Your task to perform on an android device: When is my next meeting? Image 0: 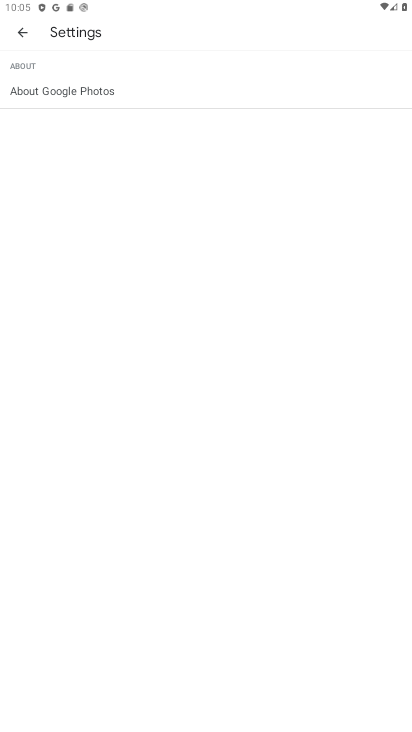
Step 0: press home button
Your task to perform on an android device: When is my next meeting? Image 1: 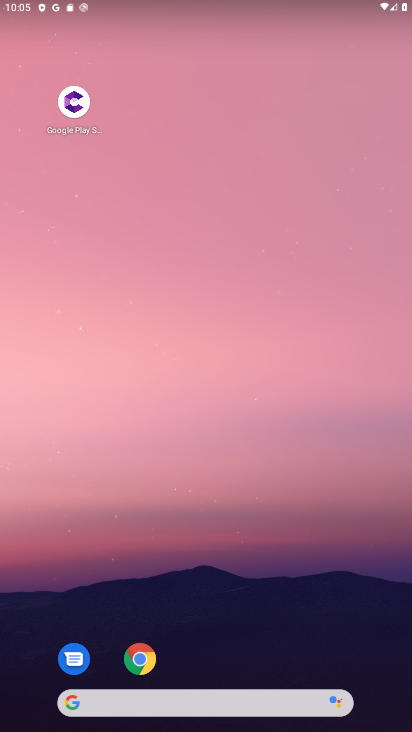
Step 1: drag from (251, 540) to (277, 162)
Your task to perform on an android device: When is my next meeting? Image 2: 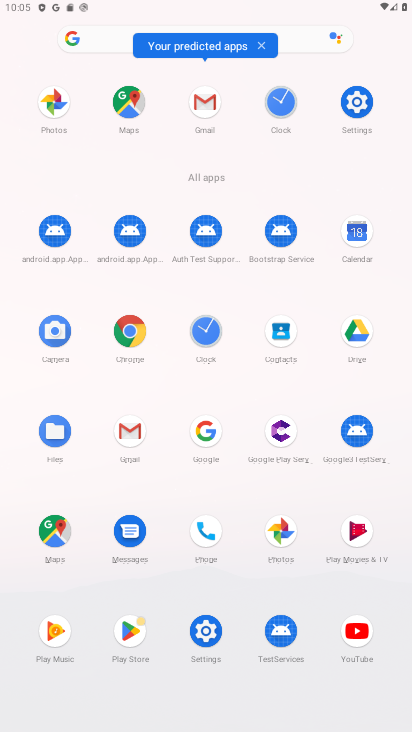
Step 2: click (366, 233)
Your task to perform on an android device: When is my next meeting? Image 3: 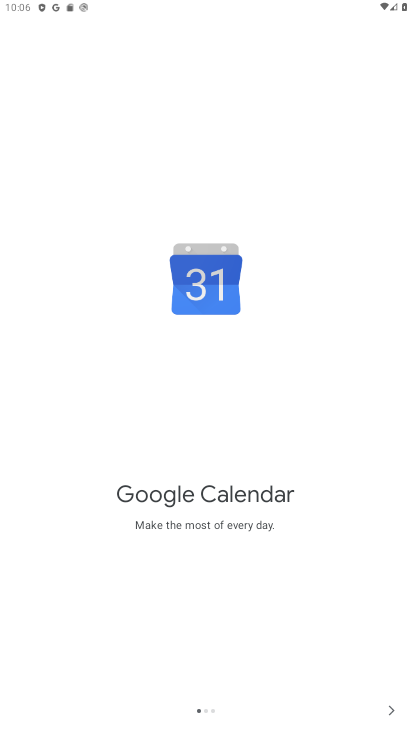
Step 3: click (389, 696)
Your task to perform on an android device: When is my next meeting? Image 4: 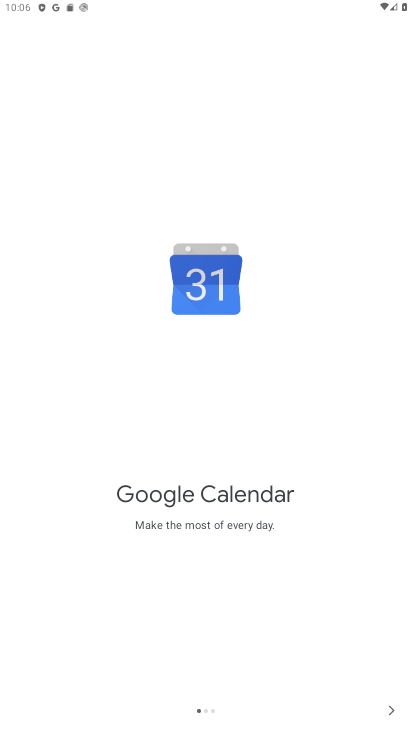
Step 4: click (391, 710)
Your task to perform on an android device: When is my next meeting? Image 5: 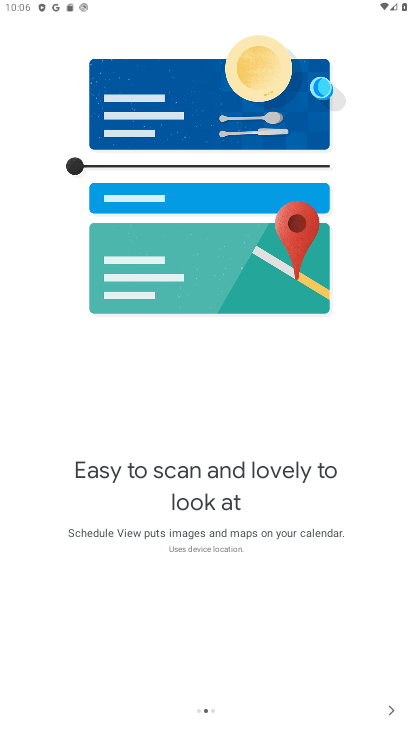
Step 5: click (387, 708)
Your task to perform on an android device: When is my next meeting? Image 6: 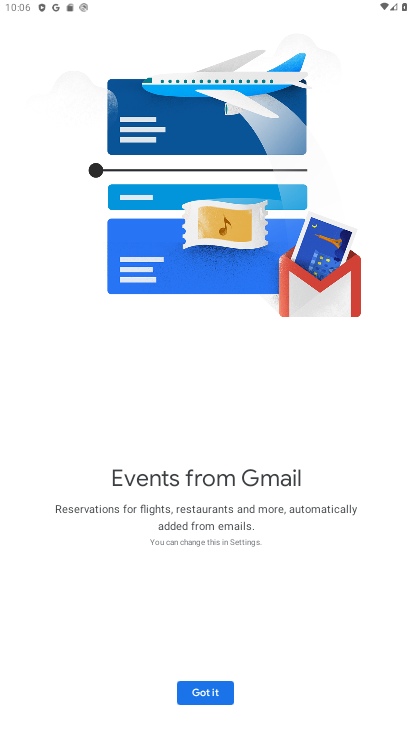
Step 6: click (208, 699)
Your task to perform on an android device: When is my next meeting? Image 7: 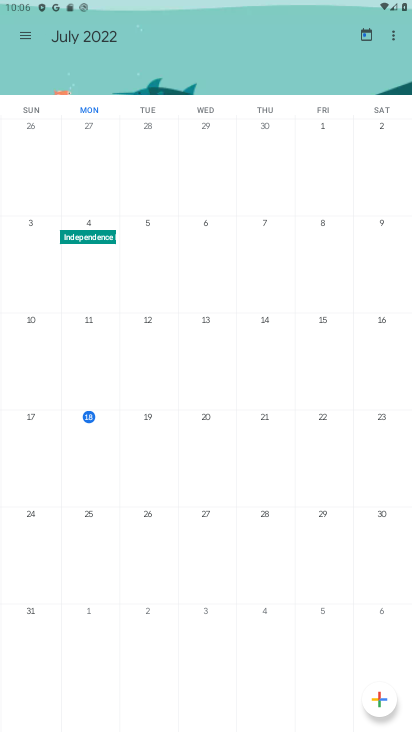
Step 7: click (27, 31)
Your task to perform on an android device: When is my next meeting? Image 8: 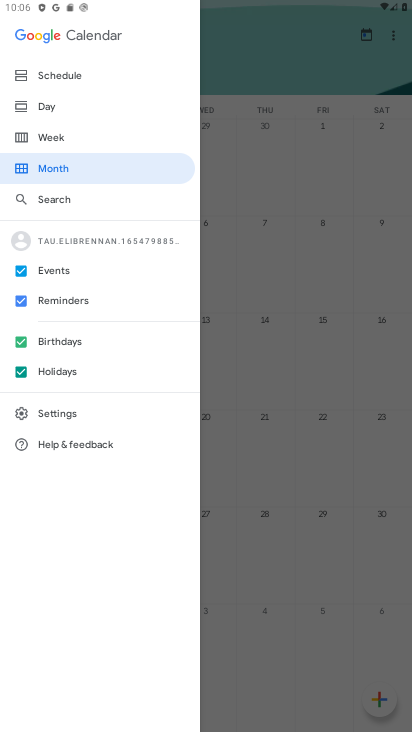
Step 8: click (62, 77)
Your task to perform on an android device: When is my next meeting? Image 9: 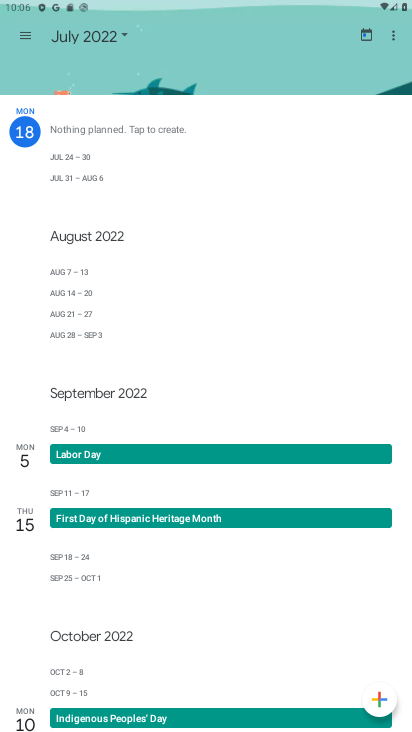
Step 9: task complete